Your task to perform on an android device: turn on translation in the chrome app Image 0: 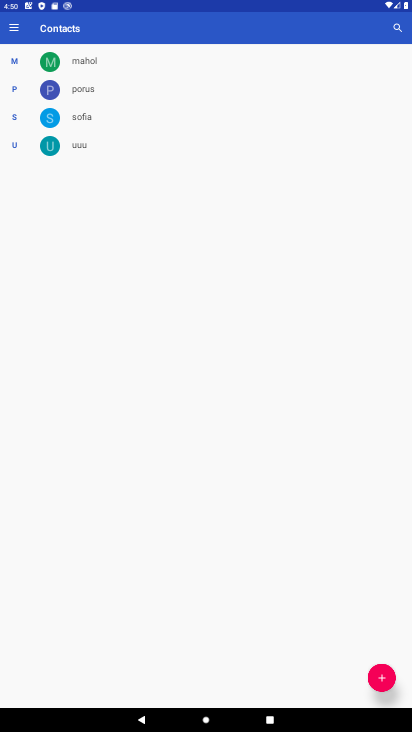
Step 0: press home button
Your task to perform on an android device: turn on translation in the chrome app Image 1: 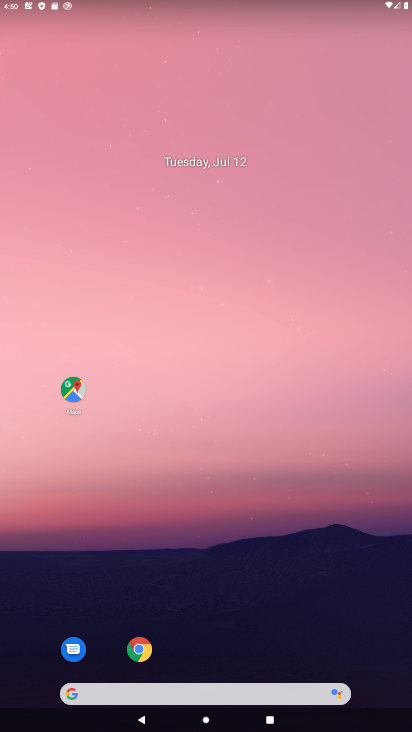
Step 1: click (138, 651)
Your task to perform on an android device: turn on translation in the chrome app Image 2: 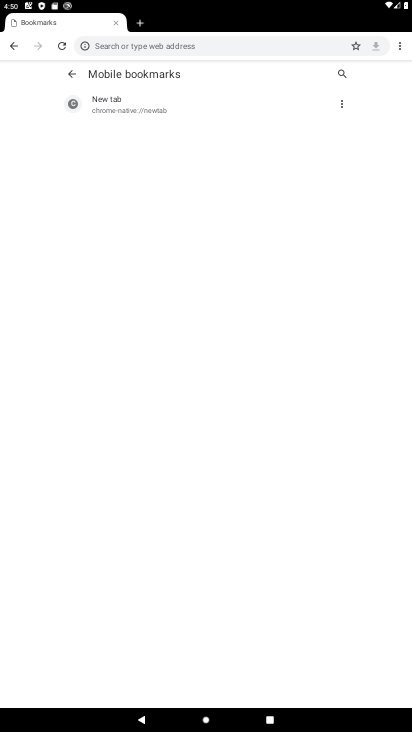
Step 2: click (400, 45)
Your task to perform on an android device: turn on translation in the chrome app Image 3: 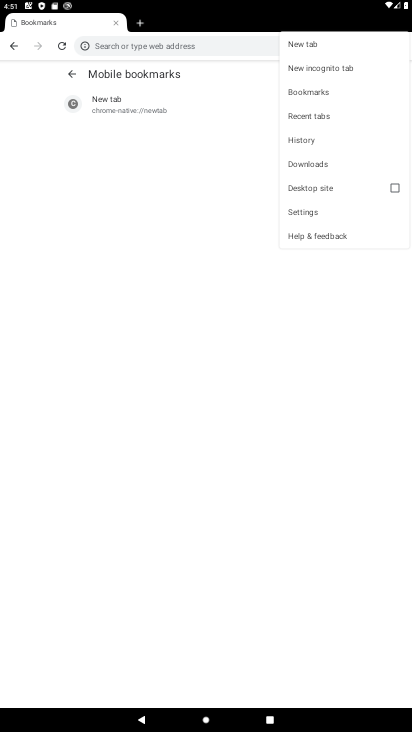
Step 3: click (301, 213)
Your task to perform on an android device: turn on translation in the chrome app Image 4: 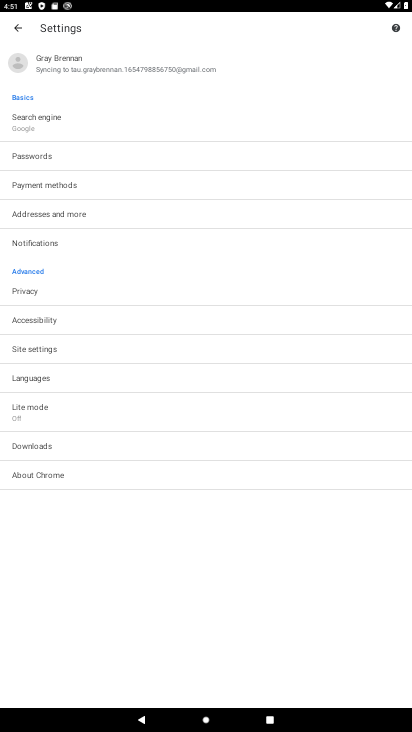
Step 4: click (27, 379)
Your task to perform on an android device: turn on translation in the chrome app Image 5: 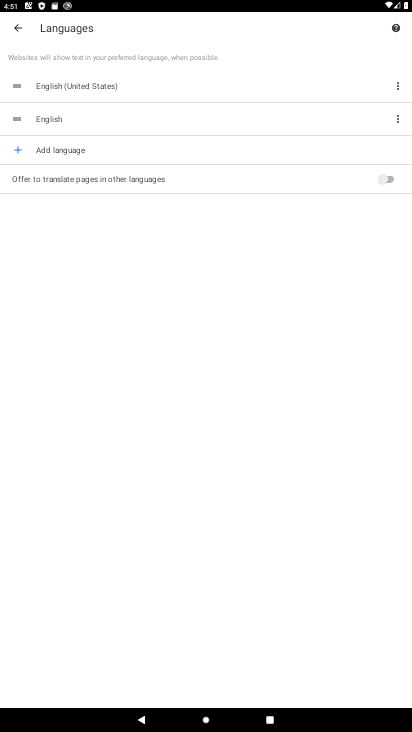
Step 5: click (384, 180)
Your task to perform on an android device: turn on translation in the chrome app Image 6: 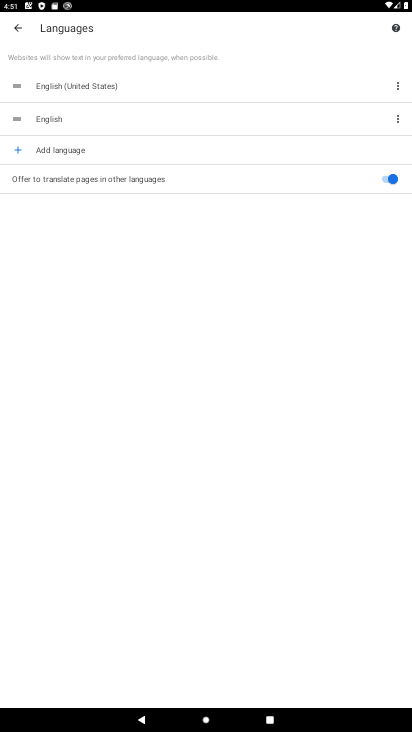
Step 6: task complete